Your task to perform on an android device: Open wifi settings Image 0: 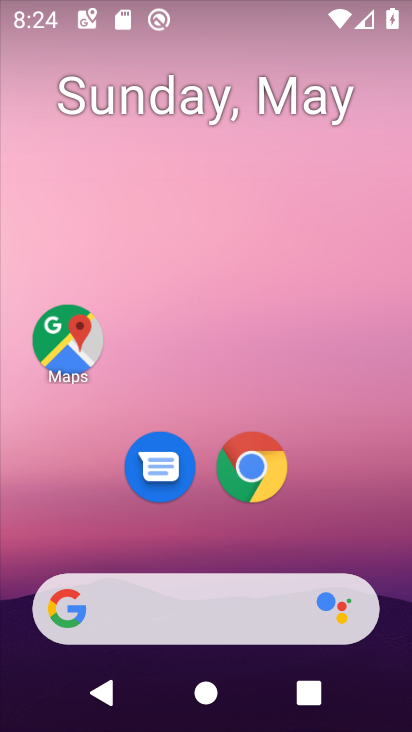
Step 0: drag from (356, 346) to (329, 81)
Your task to perform on an android device: Open wifi settings Image 1: 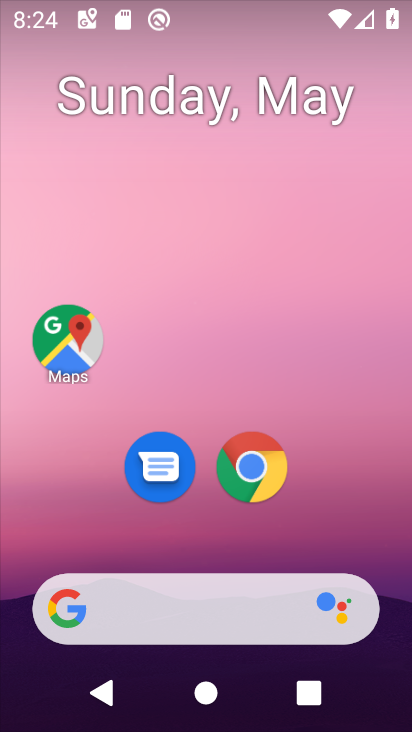
Step 1: drag from (339, 508) to (355, 95)
Your task to perform on an android device: Open wifi settings Image 2: 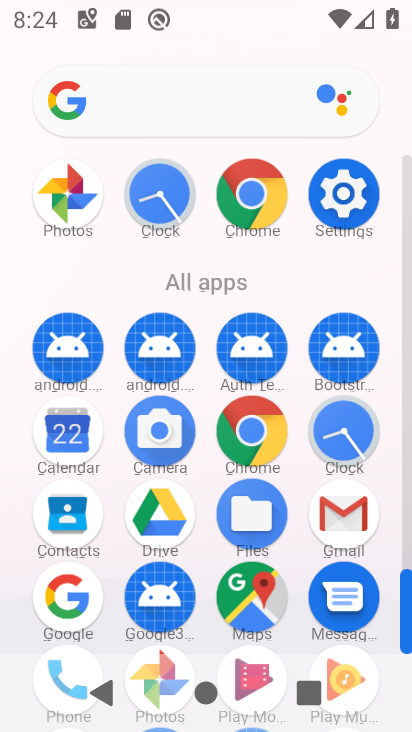
Step 2: click (338, 186)
Your task to perform on an android device: Open wifi settings Image 3: 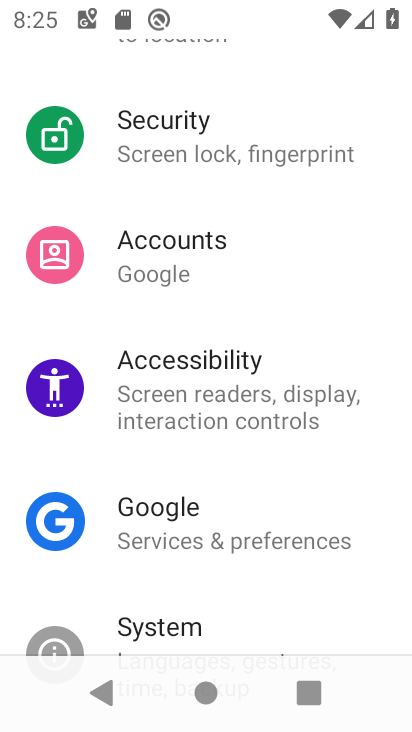
Step 3: drag from (291, 542) to (312, 262)
Your task to perform on an android device: Open wifi settings Image 4: 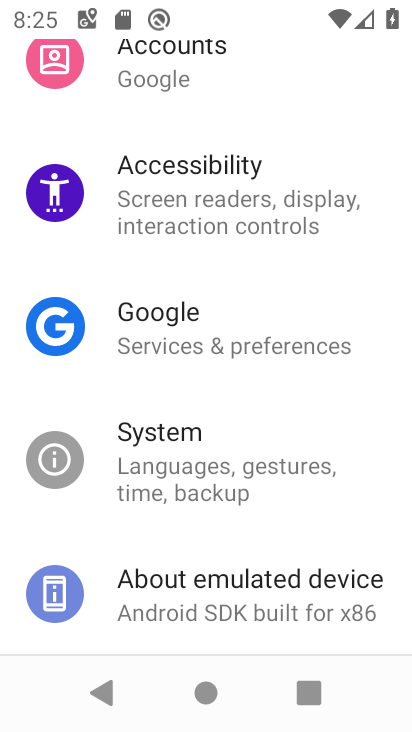
Step 4: drag from (275, 190) to (289, 609)
Your task to perform on an android device: Open wifi settings Image 5: 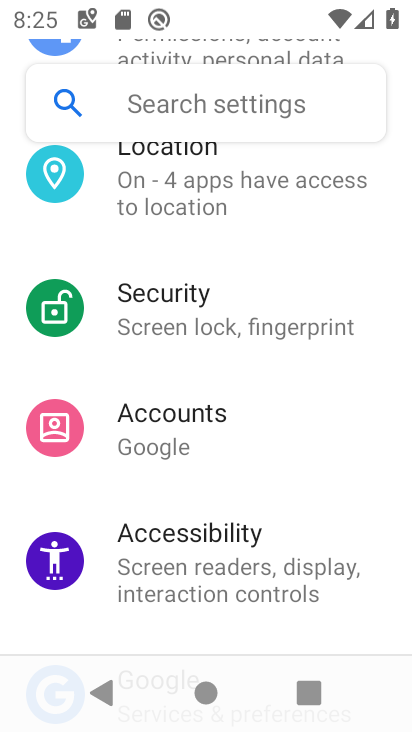
Step 5: drag from (287, 179) to (291, 570)
Your task to perform on an android device: Open wifi settings Image 6: 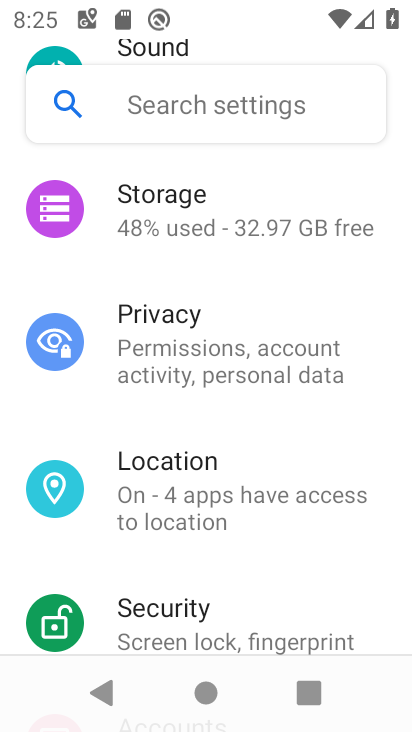
Step 6: drag from (302, 214) to (298, 610)
Your task to perform on an android device: Open wifi settings Image 7: 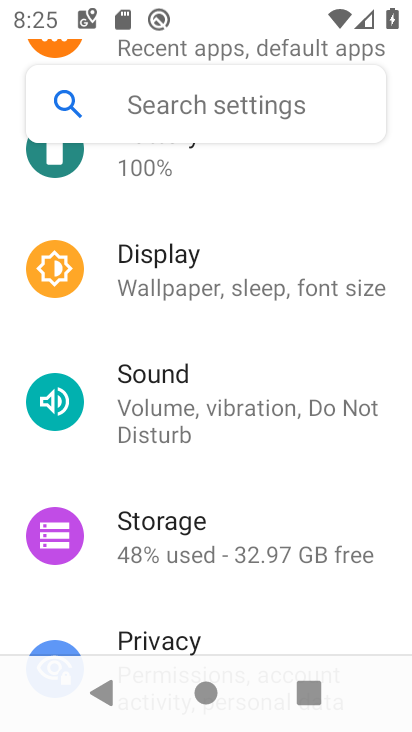
Step 7: drag from (321, 216) to (321, 574)
Your task to perform on an android device: Open wifi settings Image 8: 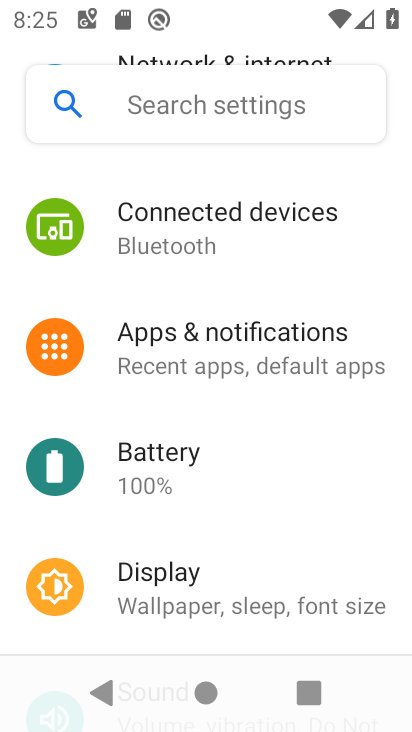
Step 8: drag from (325, 205) to (310, 572)
Your task to perform on an android device: Open wifi settings Image 9: 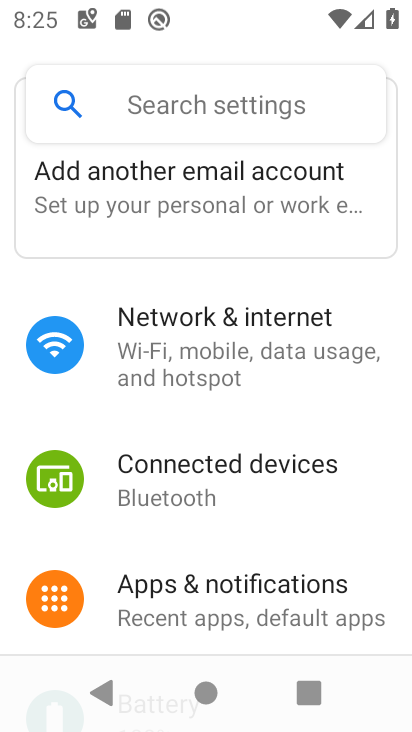
Step 9: click (276, 320)
Your task to perform on an android device: Open wifi settings Image 10: 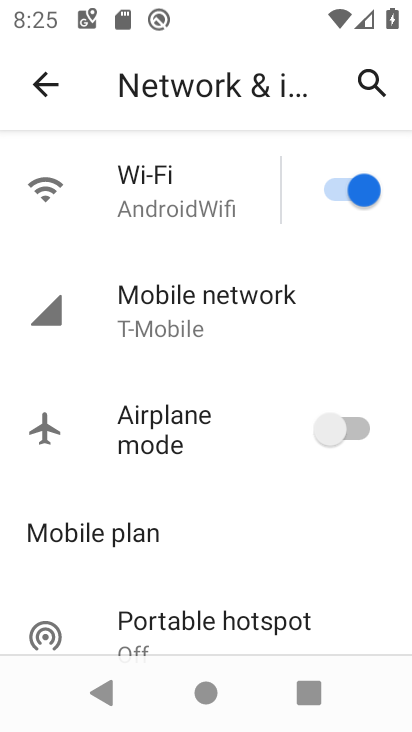
Step 10: click (184, 208)
Your task to perform on an android device: Open wifi settings Image 11: 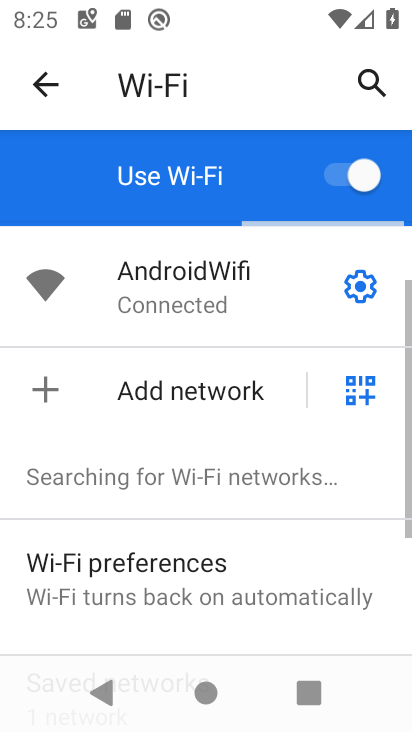
Step 11: click (356, 290)
Your task to perform on an android device: Open wifi settings Image 12: 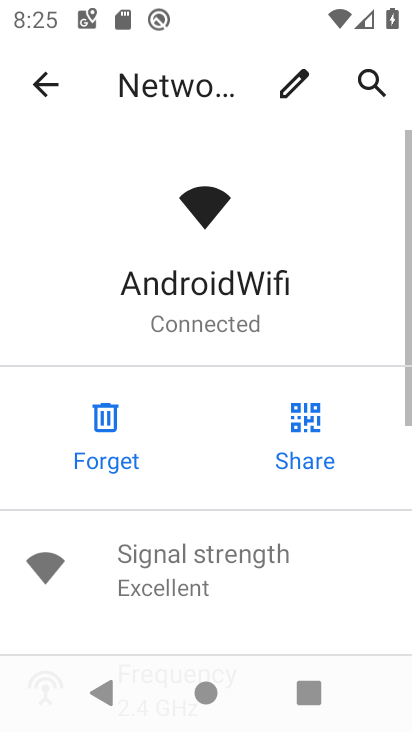
Step 12: task complete